Your task to perform on an android device: Open calendar and show me the second week of next month Image 0: 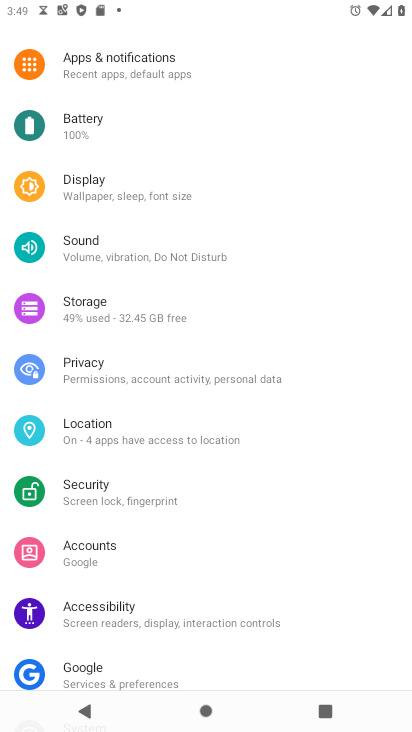
Step 0: press home button
Your task to perform on an android device: Open calendar and show me the second week of next month Image 1: 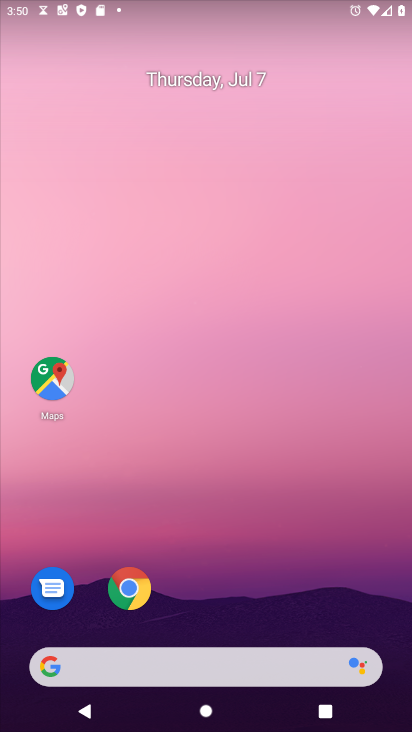
Step 1: drag from (211, 600) to (266, 91)
Your task to perform on an android device: Open calendar and show me the second week of next month Image 2: 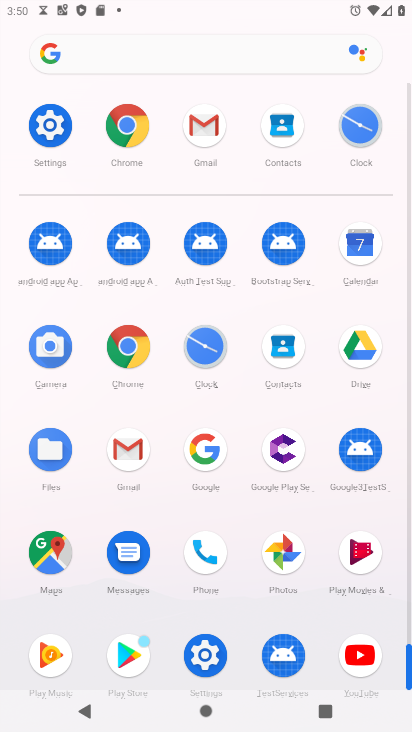
Step 2: click (362, 243)
Your task to perform on an android device: Open calendar and show me the second week of next month Image 3: 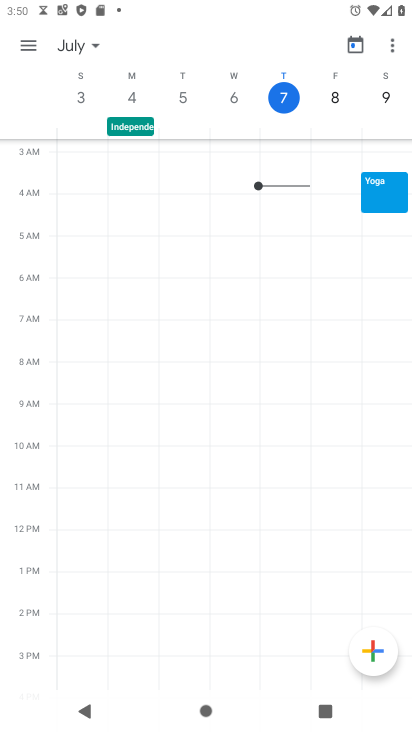
Step 3: click (98, 42)
Your task to perform on an android device: Open calendar and show me the second week of next month Image 4: 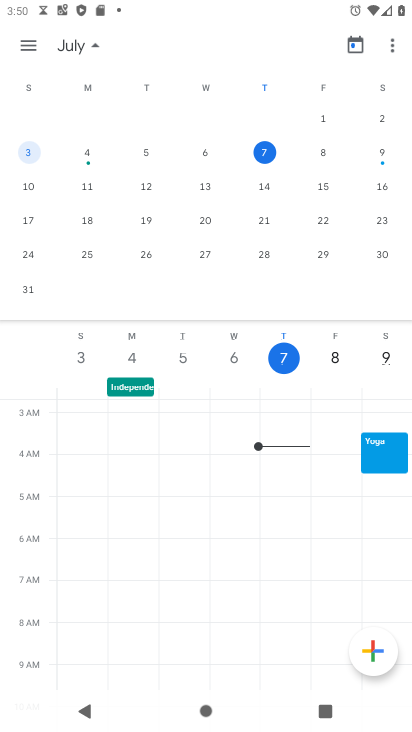
Step 4: drag from (361, 186) to (7, 197)
Your task to perform on an android device: Open calendar and show me the second week of next month Image 5: 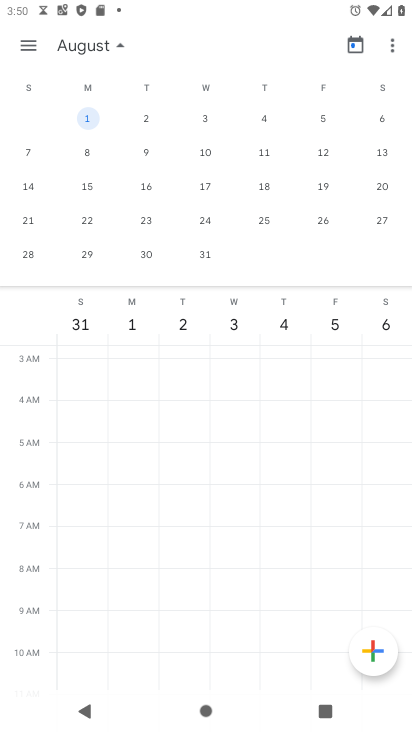
Step 5: click (92, 146)
Your task to perform on an android device: Open calendar and show me the second week of next month Image 6: 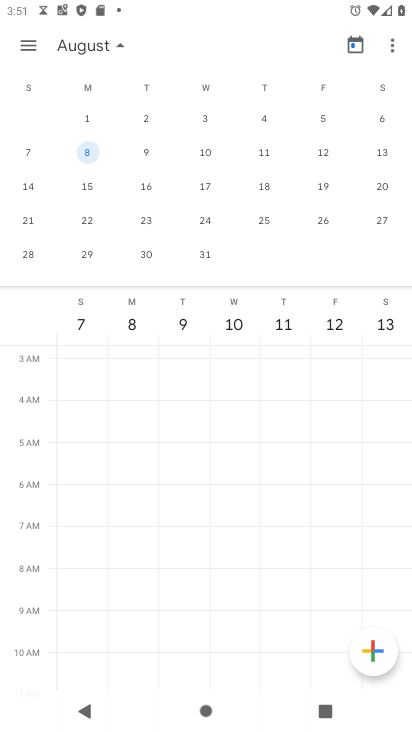
Step 6: click (34, 46)
Your task to perform on an android device: Open calendar and show me the second week of next month Image 7: 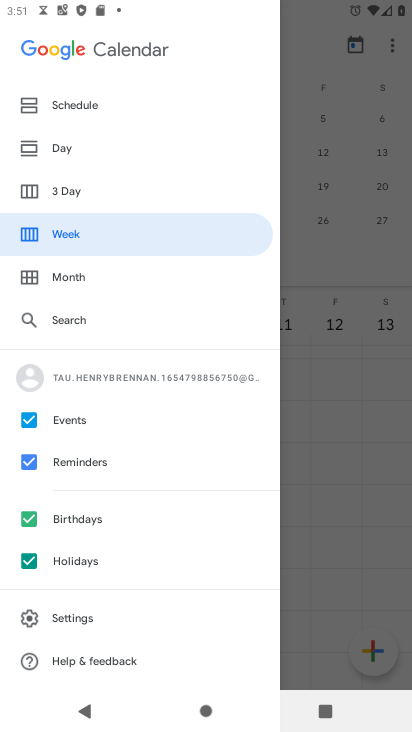
Step 7: click (74, 228)
Your task to perform on an android device: Open calendar and show me the second week of next month Image 8: 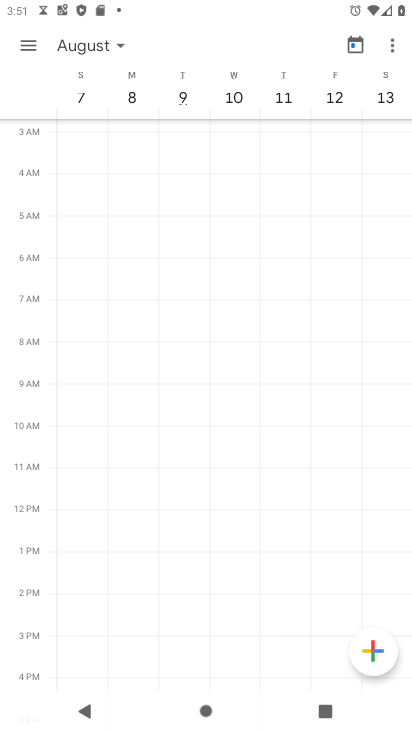
Step 8: task complete